Your task to perform on an android device: Open the phone app and click the voicemail tab. Image 0: 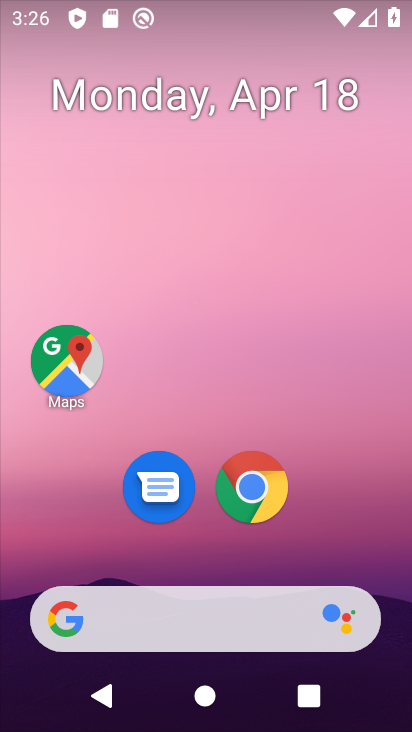
Step 0: drag from (228, 521) to (307, 126)
Your task to perform on an android device: Open the phone app and click the voicemail tab. Image 1: 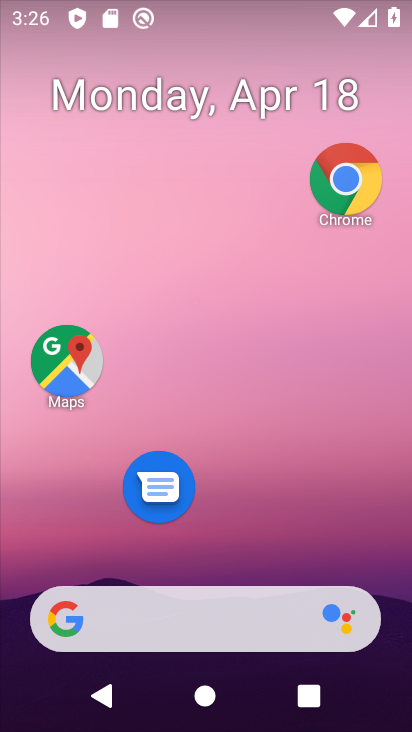
Step 1: drag from (185, 615) to (333, 80)
Your task to perform on an android device: Open the phone app and click the voicemail tab. Image 2: 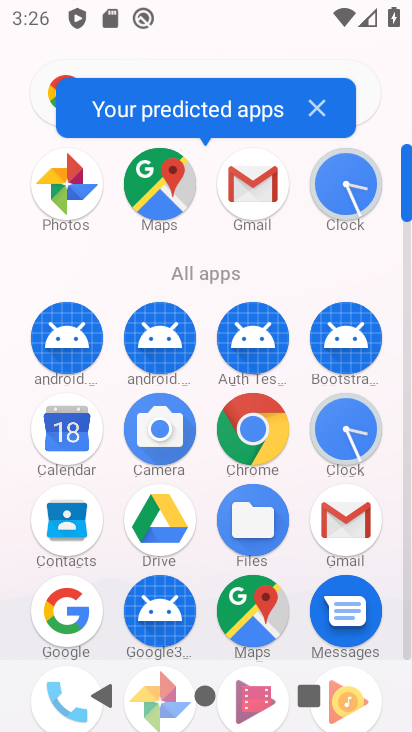
Step 2: drag from (147, 468) to (310, 73)
Your task to perform on an android device: Open the phone app and click the voicemail tab. Image 3: 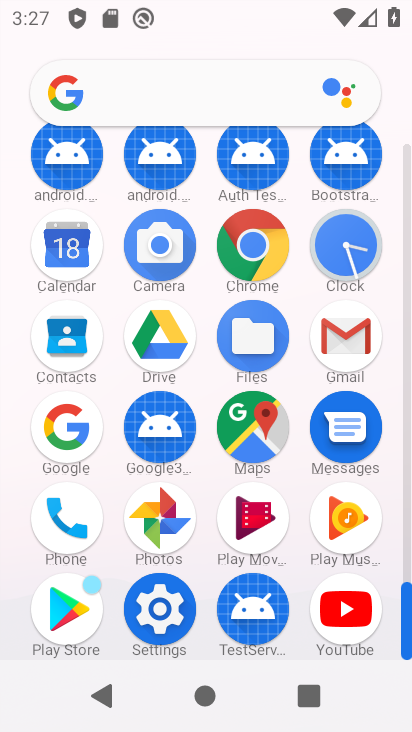
Step 3: click (59, 522)
Your task to perform on an android device: Open the phone app and click the voicemail tab. Image 4: 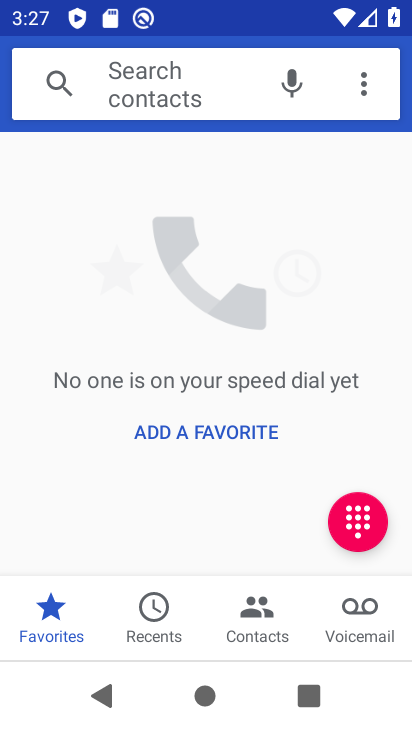
Step 4: click (361, 616)
Your task to perform on an android device: Open the phone app and click the voicemail tab. Image 5: 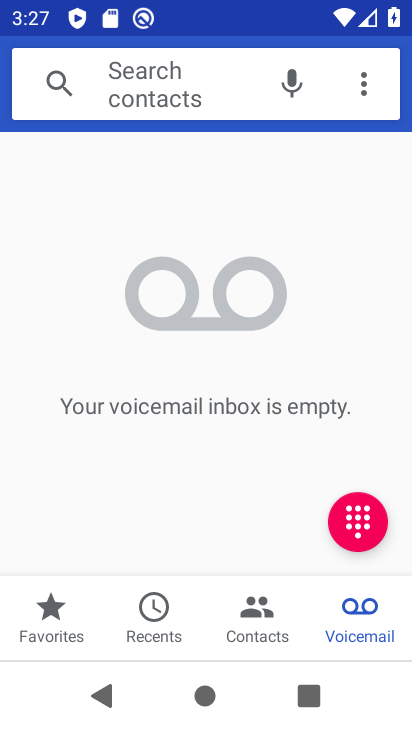
Step 5: task complete